Your task to perform on an android device: visit the assistant section in the google photos Image 0: 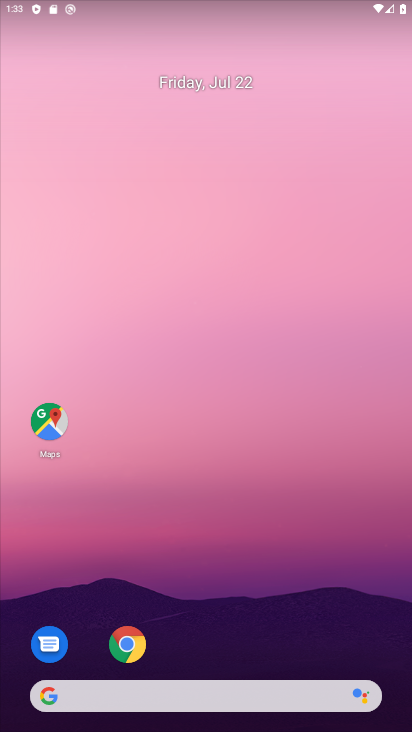
Step 0: drag from (189, 643) to (211, 131)
Your task to perform on an android device: visit the assistant section in the google photos Image 1: 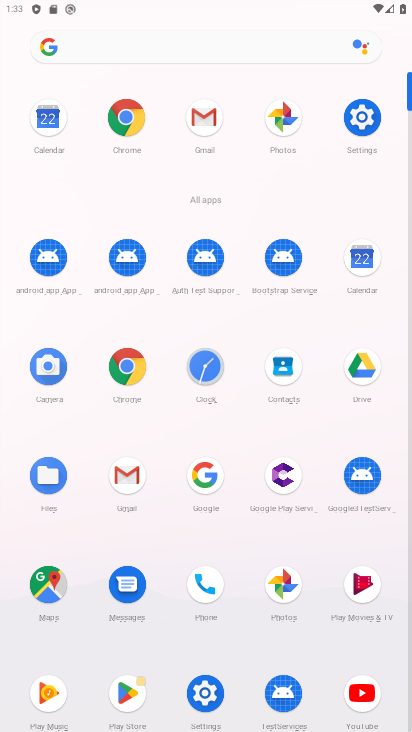
Step 1: click (277, 580)
Your task to perform on an android device: visit the assistant section in the google photos Image 2: 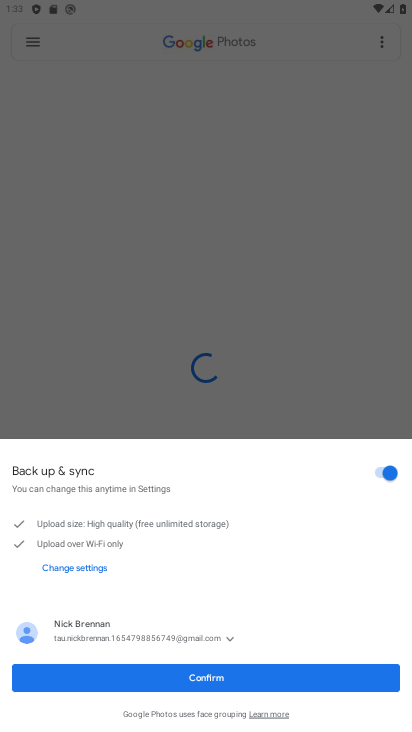
Step 2: click (239, 679)
Your task to perform on an android device: visit the assistant section in the google photos Image 3: 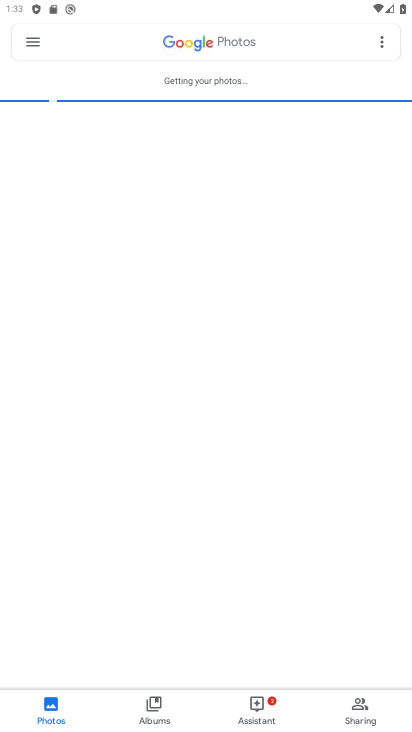
Step 3: click (269, 717)
Your task to perform on an android device: visit the assistant section in the google photos Image 4: 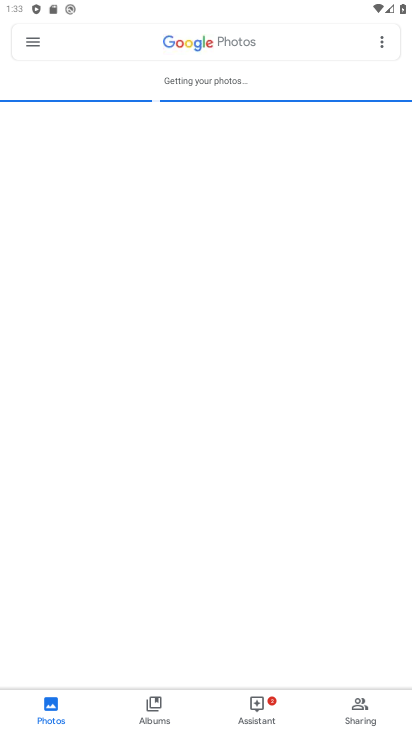
Step 4: click (269, 717)
Your task to perform on an android device: visit the assistant section in the google photos Image 5: 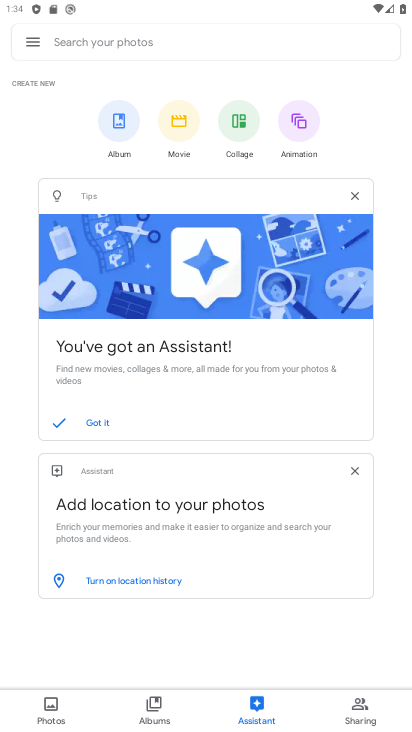
Step 5: task complete